Your task to perform on an android device: Show me popular videos on Youtube Image 0: 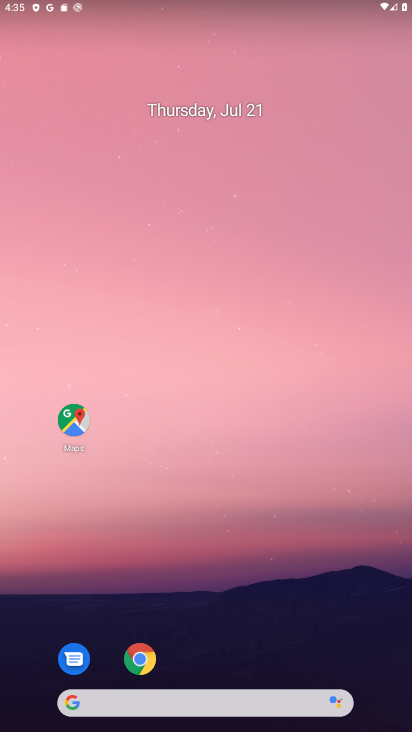
Step 0: drag from (175, 169) to (155, 5)
Your task to perform on an android device: Show me popular videos on Youtube Image 1: 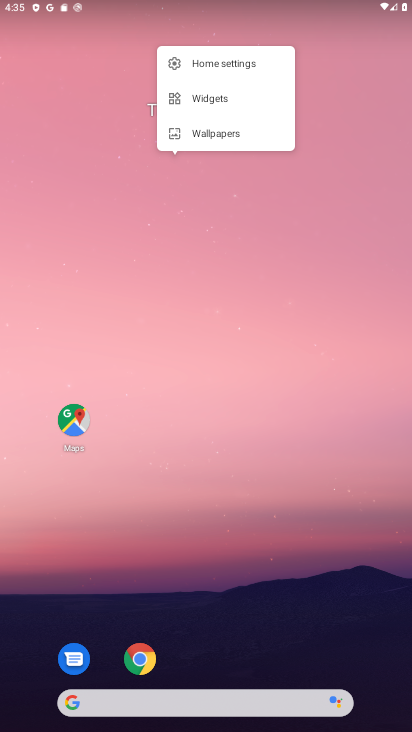
Step 1: drag from (228, 632) to (152, 228)
Your task to perform on an android device: Show me popular videos on Youtube Image 2: 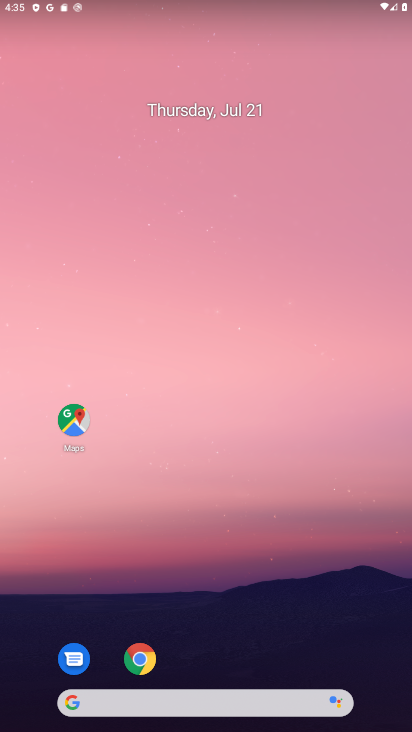
Step 2: click (164, 97)
Your task to perform on an android device: Show me popular videos on Youtube Image 3: 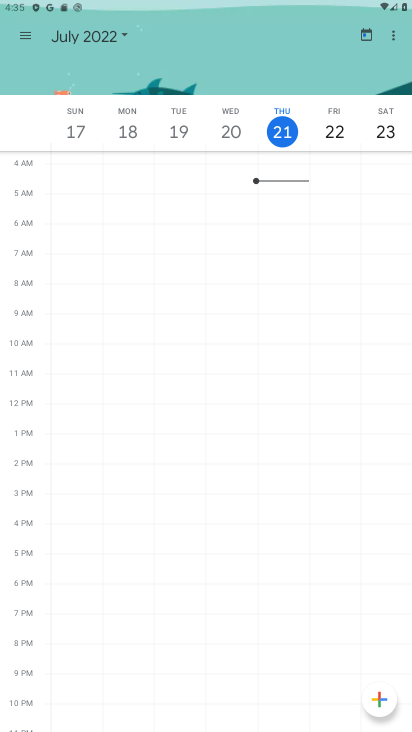
Step 3: press home button
Your task to perform on an android device: Show me popular videos on Youtube Image 4: 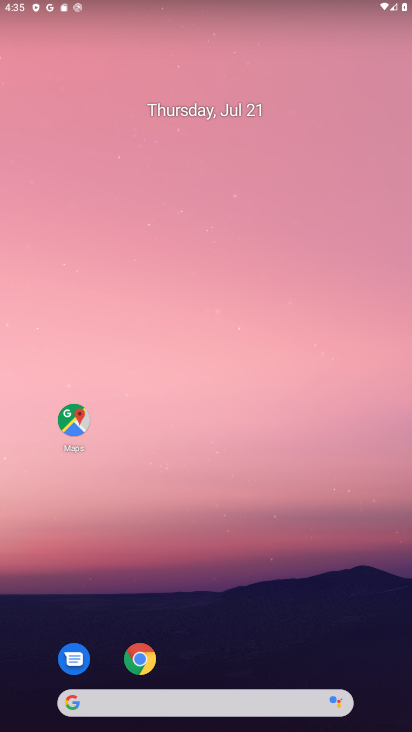
Step 4: drag from (213, 614) to (145, 46)
Your task to perform on an android device: Show me popular videos on Youtube Image 5: 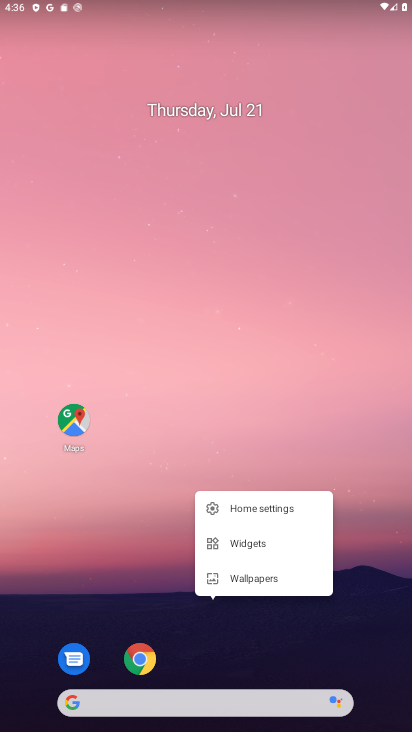
Step 5: click (177, 296)
Your task to perform on an android device: Show me popular videos on Youtube Image 6: 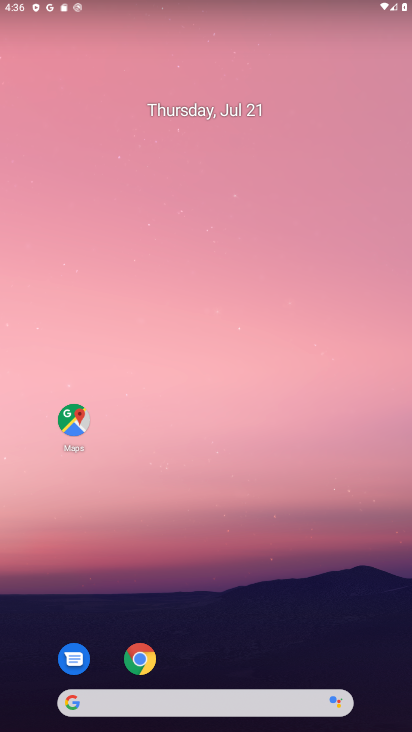
Step 6: click (221, 407)
Your task to perform on an android device: Show me popular videos on Youtube Image 7: 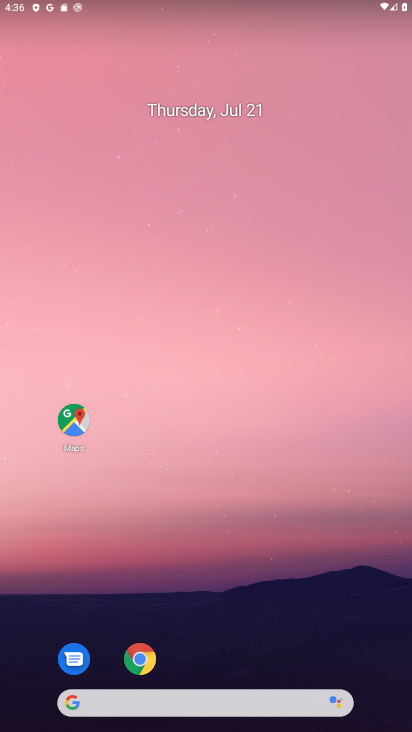
Step 7: drag from (236, 625) to (208, 34)
Your task to perform on an android device: Show me popular videos on Youtube Image 8: 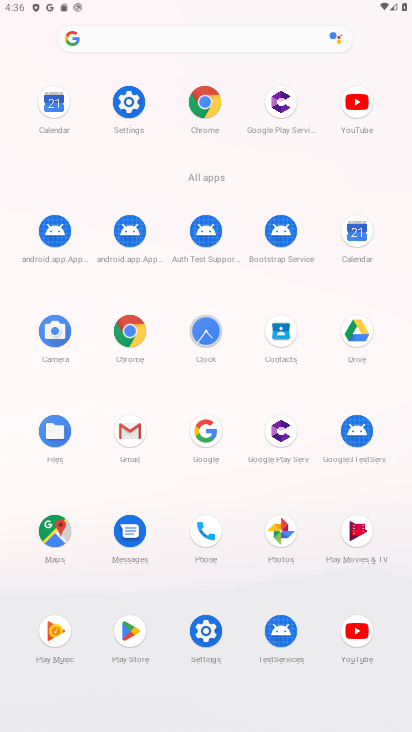
Step 8: click (359, 632)
Your task to perform on an android device: Show me popular videos on Youtube Image 9: 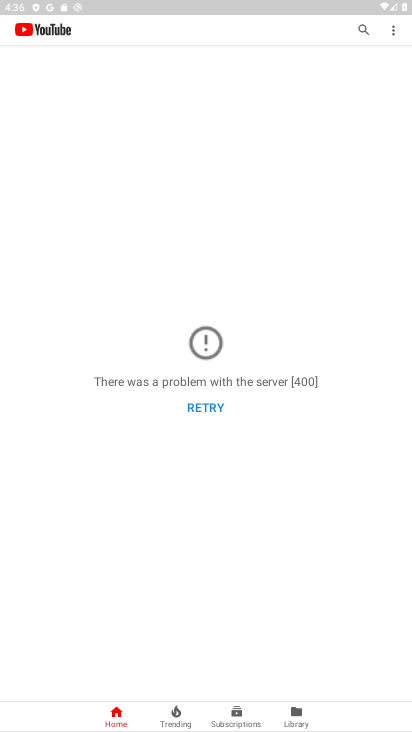
Step 9: click (207, 405)
Your task to perform on an android device: Show me popular videos on Youtube Image 10: 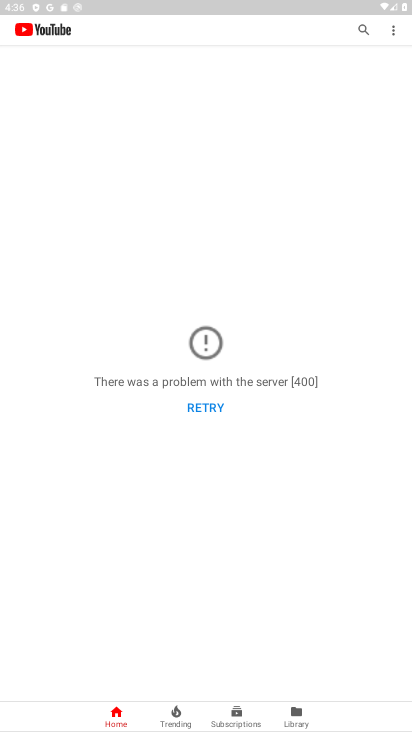
Step 10: click (207, 405)
Your task to perform on an android device: Show me popular videos on Youtube Image 11: 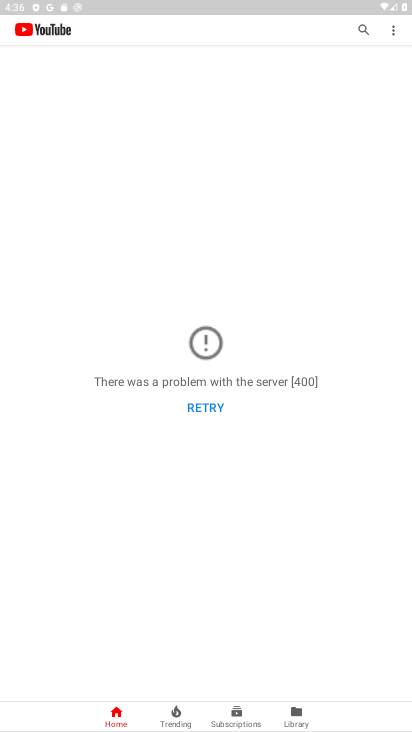
Step 11: task complete